Your task to perform on an android device: turn off picture-in-picture Image 0: 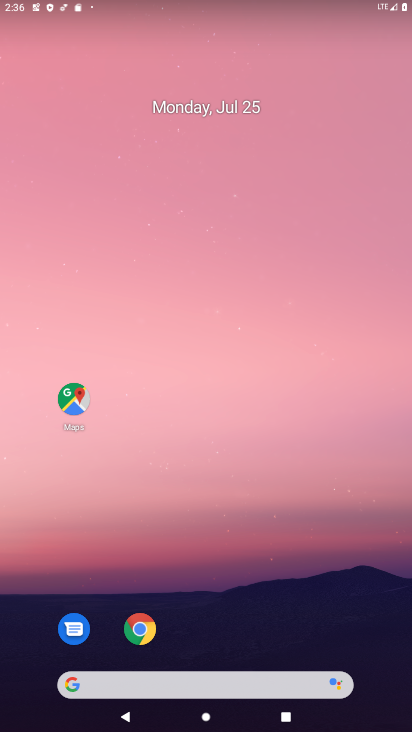
Step 0: drag from (168, 653) to (221, 88)
Your task to perform on an android device: turn off picture-in-picture Image 1: 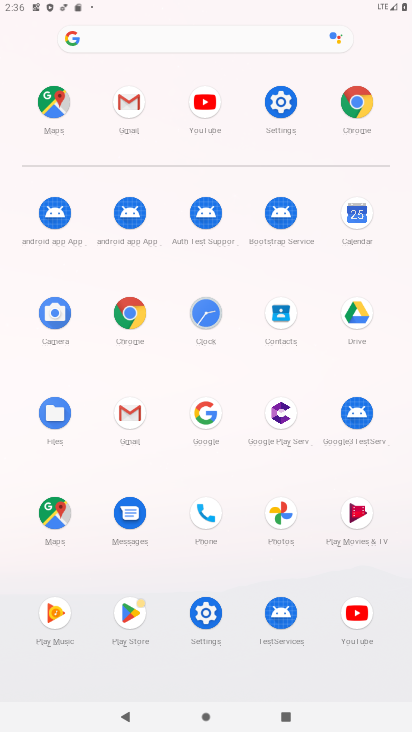
Step 1: click (205, 613)
Your task to perform on an android device: turn off picture-in-picture Image 2: 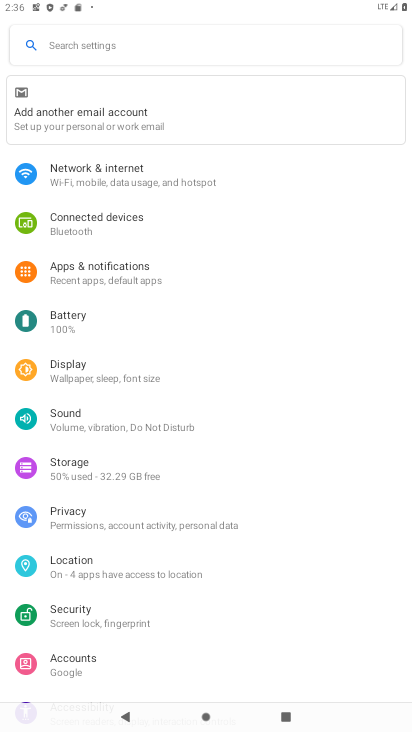
Step 2: click (127, 282)
Your task to perform on an android device: turn off picture-in-picture Image 3: 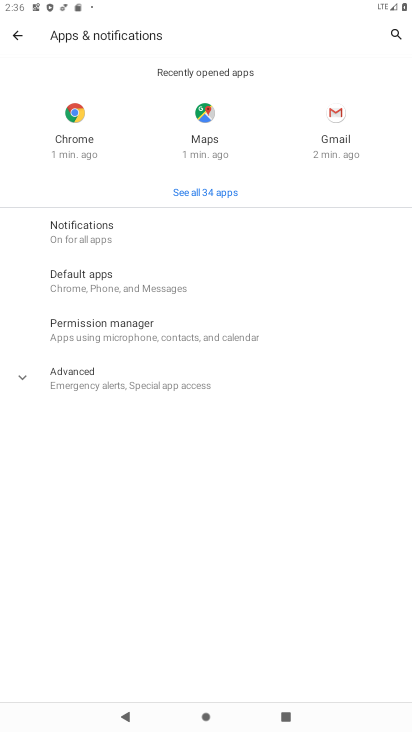
Step 3: click (142, 376)
Your task to perform on an android device: turn off picture-in-picture Image 4: 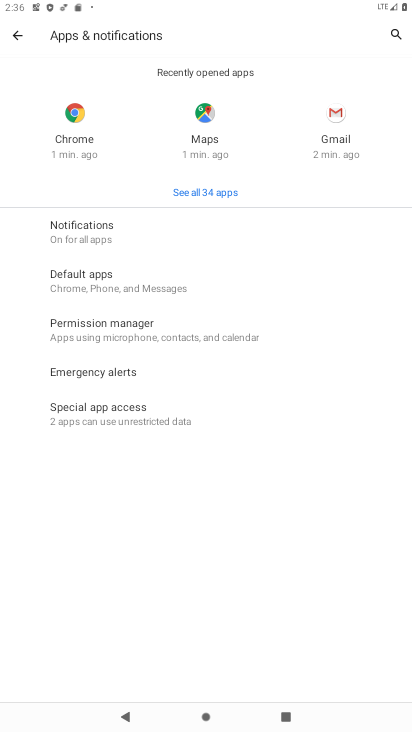
Step 4: click (148, 407)
Your task to perform on an android device: turn off picture-in-picture Image 5: 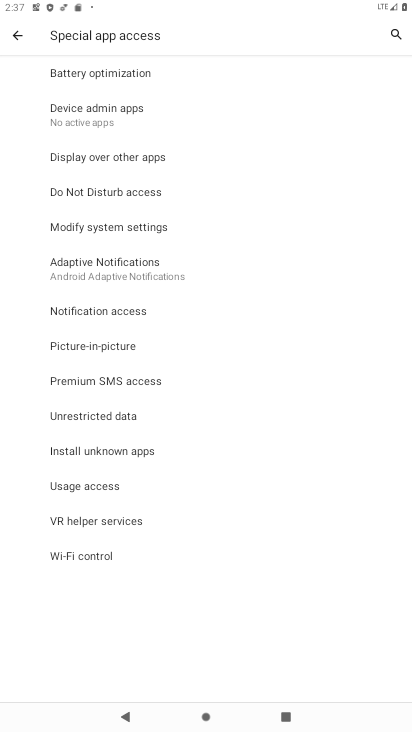
Step 5: click (85, 344)
Your task to perform on an android device: turn off picture-in-picture Image 6: 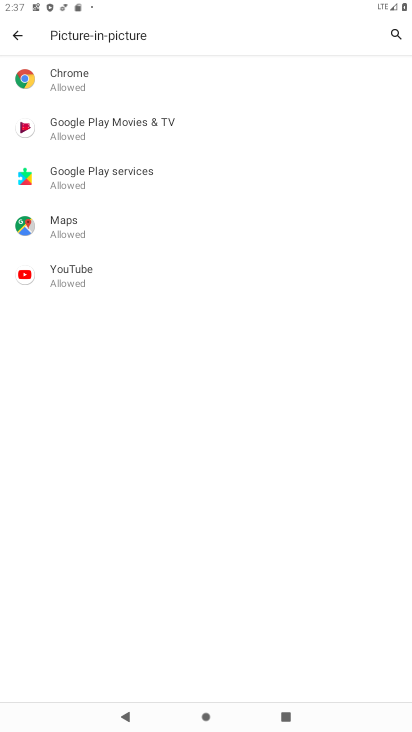
Step 6: drag from (247, 465) to (246, 190)
Your task to perform on an android device: turn off picture-in-picture Image 7: 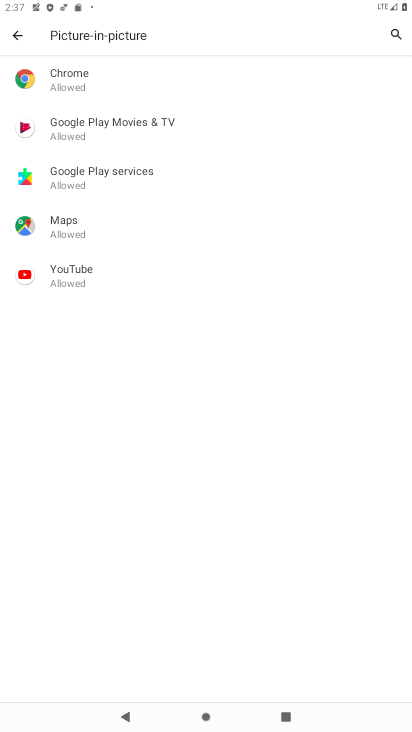
Step 7: click (88, 65)
Your task to perform on an android device: turn off picture-in-picture Image 8: 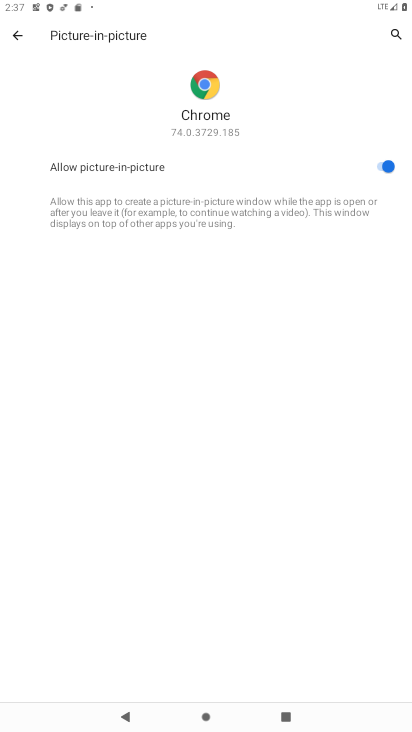
Step 8: click (384, 170)
Your task to perform on an android device: turn off picture-in-picture Image 9: 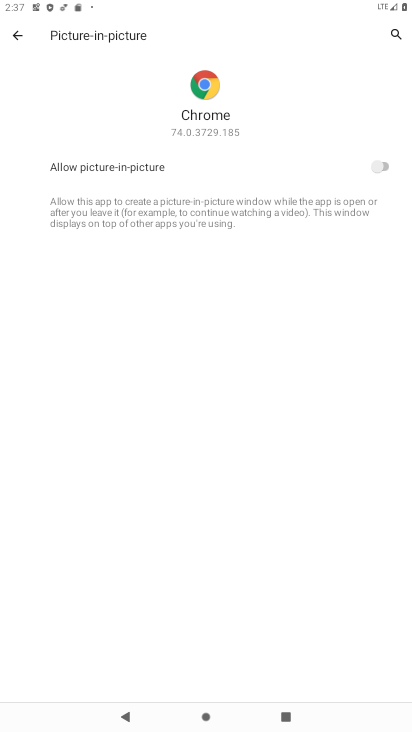
Step 9: task complete